Your task to perform on an android device: turn off priority inbox in the gmail app Image 0: 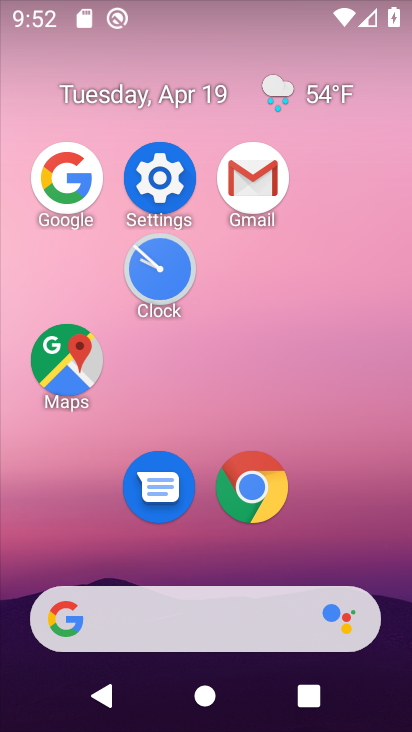
Step 0: click (267, 185)
Your task to perform on an android device: turn off priority inbox in the gmail app Image 1: 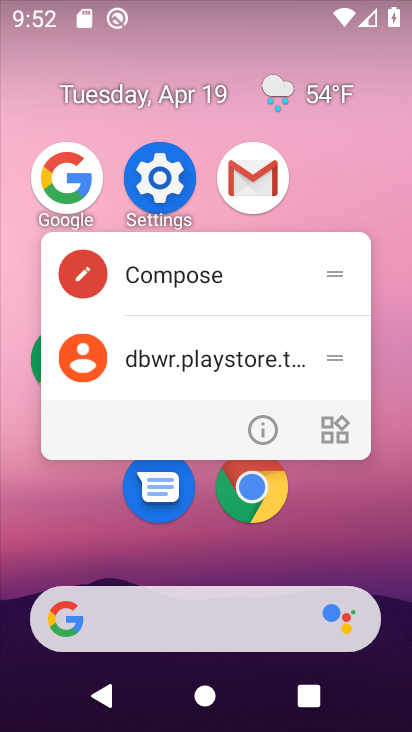
Step 1: click (267, 185)
Your task to perform on an android device: turn off priority inbox in the gmail app Image 2: 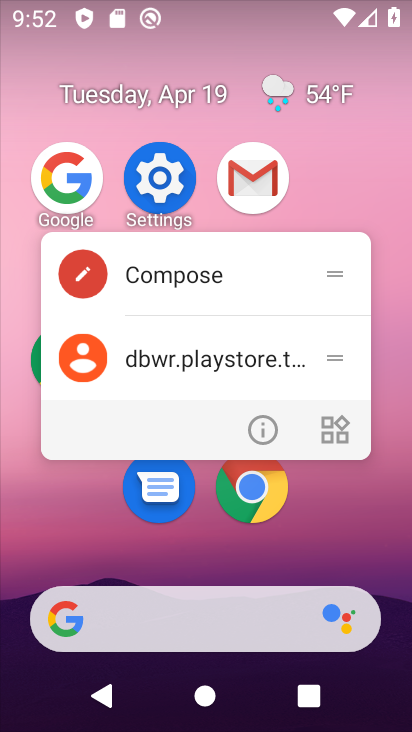
Step 2: click (256, 182)
Your task to perform on an android device: turn off priority inbox in the gmail app Image 3: 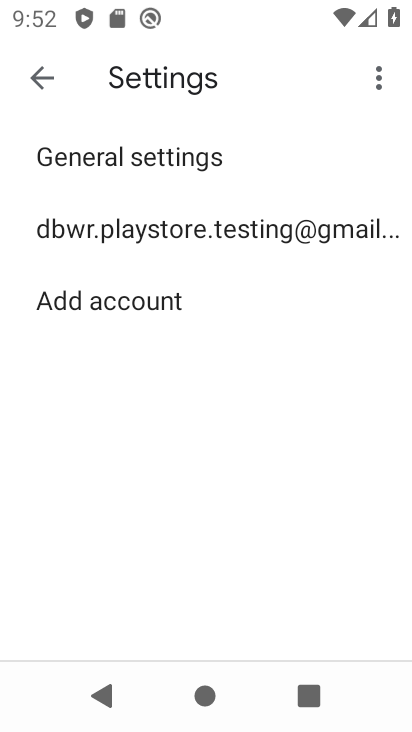
Step 3: click (239, 234)
Your task to perform on an android device: turn off priority inbox in the gmail app Image 4: 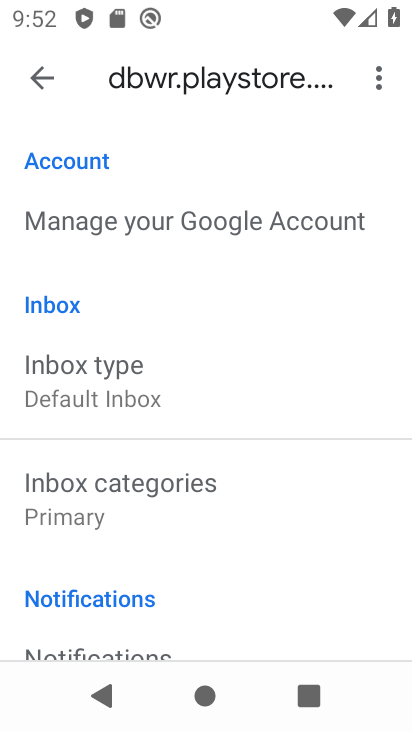
Step 4: drag from (128, 520) to (131, 176)
Your task to perform on an android device: turn off priority inbox in the gmail app Image 5: 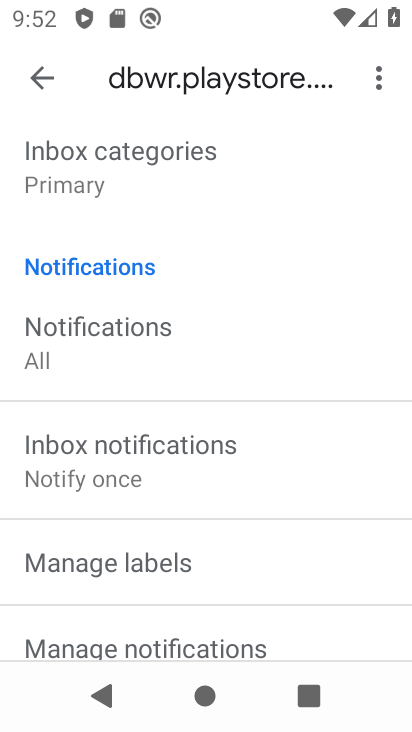
Step 5: drag from (203, 549) to (207, 197)
Your task to perform on an android device: turn off priority inbox in the gmail app Image 6: 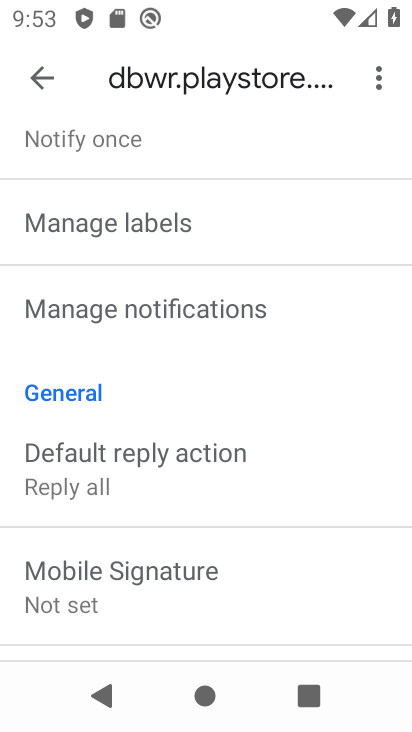
Step 6: drag from (251, 156) to (190, 182)
Your task to perform on an android device: turn off priority inbox in the gmail app Image 7: 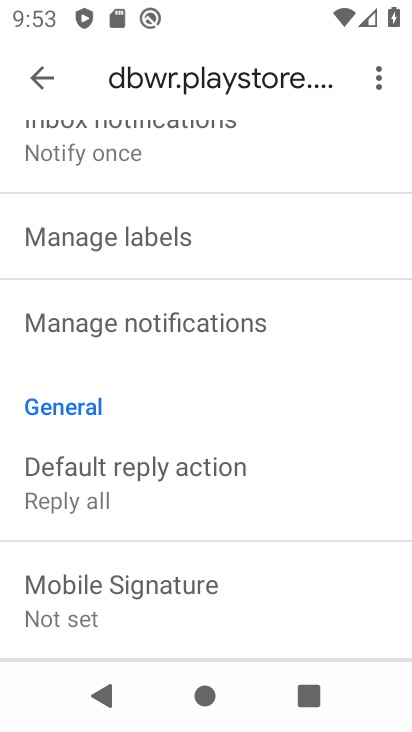
Step 7: drag from (203, 208) to (206, 506)
Your task to perform on an android device: turn off priority inbox in the gmail app Image 8: 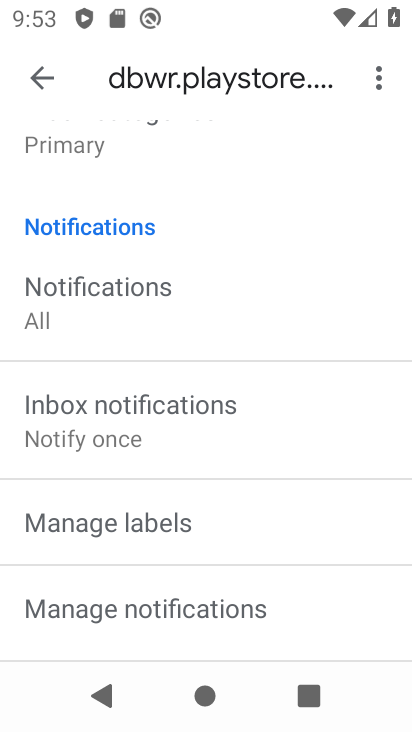
Step 8: drag from (279, 132) to (217, 487)
Your task to perform on an android device: turn off priority inbox in the gmail app Image 9: 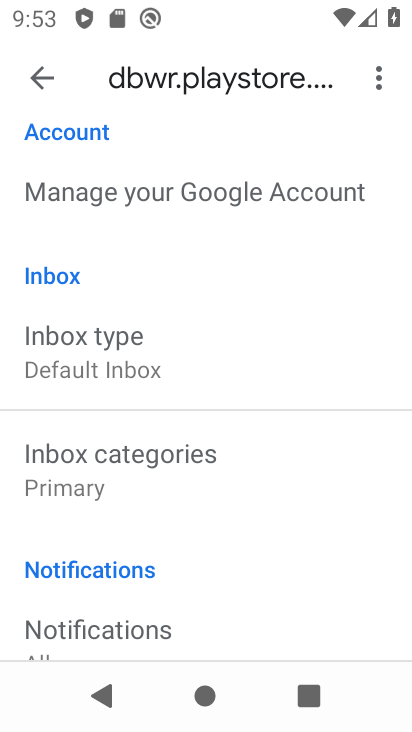
Step 9: click (192, 326)
Your task to perform on an android device: turn off priority inbox in the gmail app Image 10: 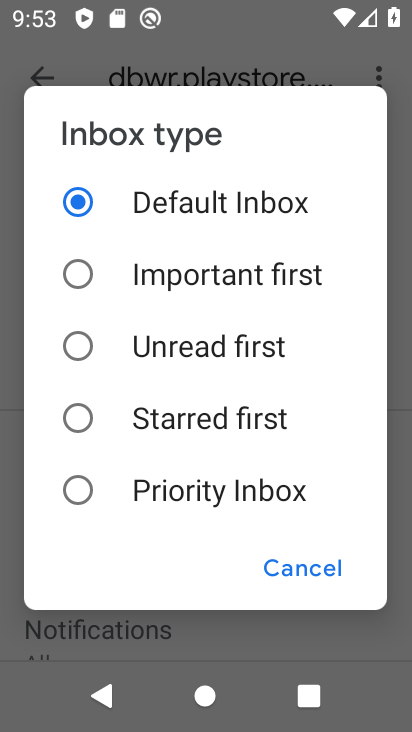
Step 10: click (153, 486)
Your task to perform on an android device: turn off priority inbox in the gmail app Image 11: 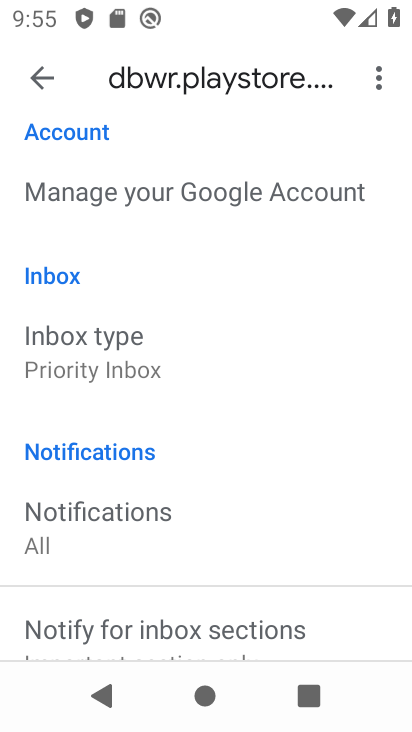
Step 11: task complete